Your task to perform on an android device: Go to sound settings Image 0: 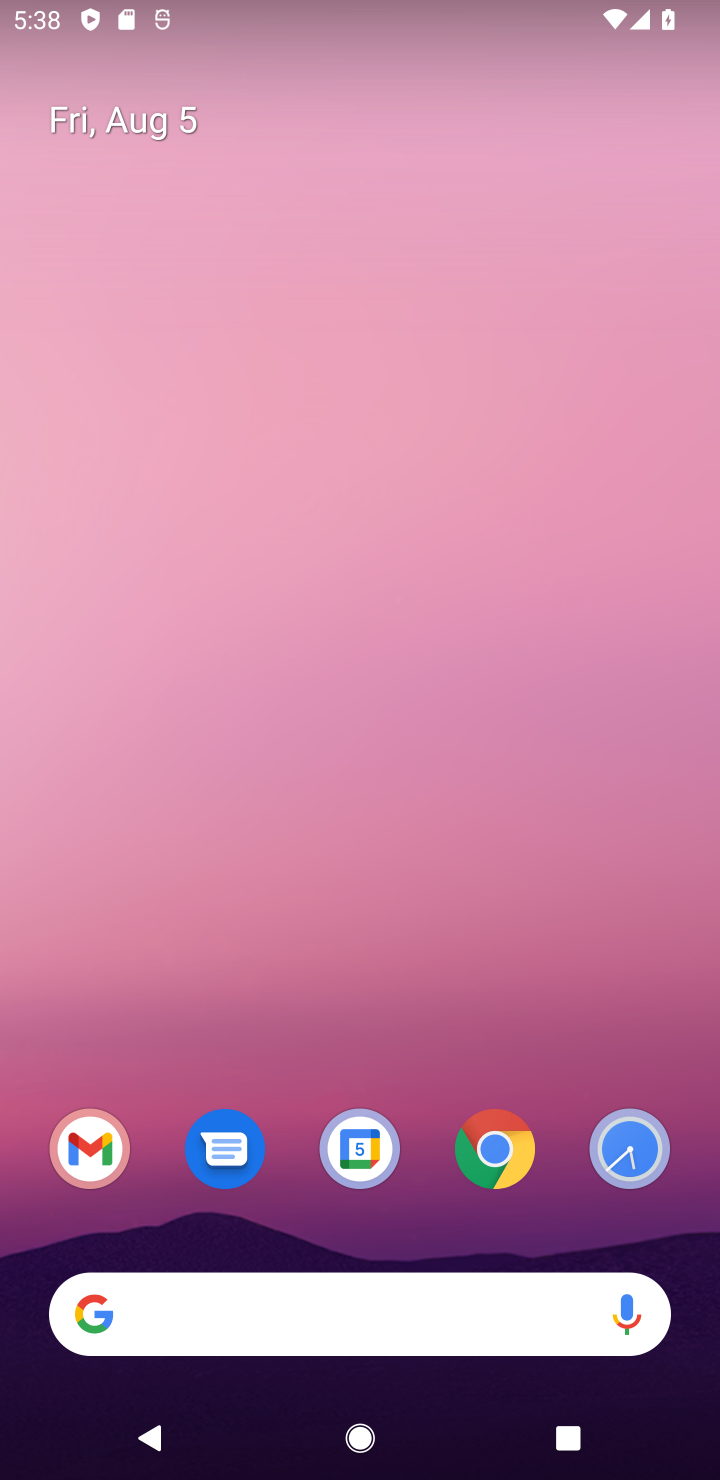
Step 0: drag from (284, 1053) to (221, 144)
Your task to perform on an android device: Go to sound settings Image 1: 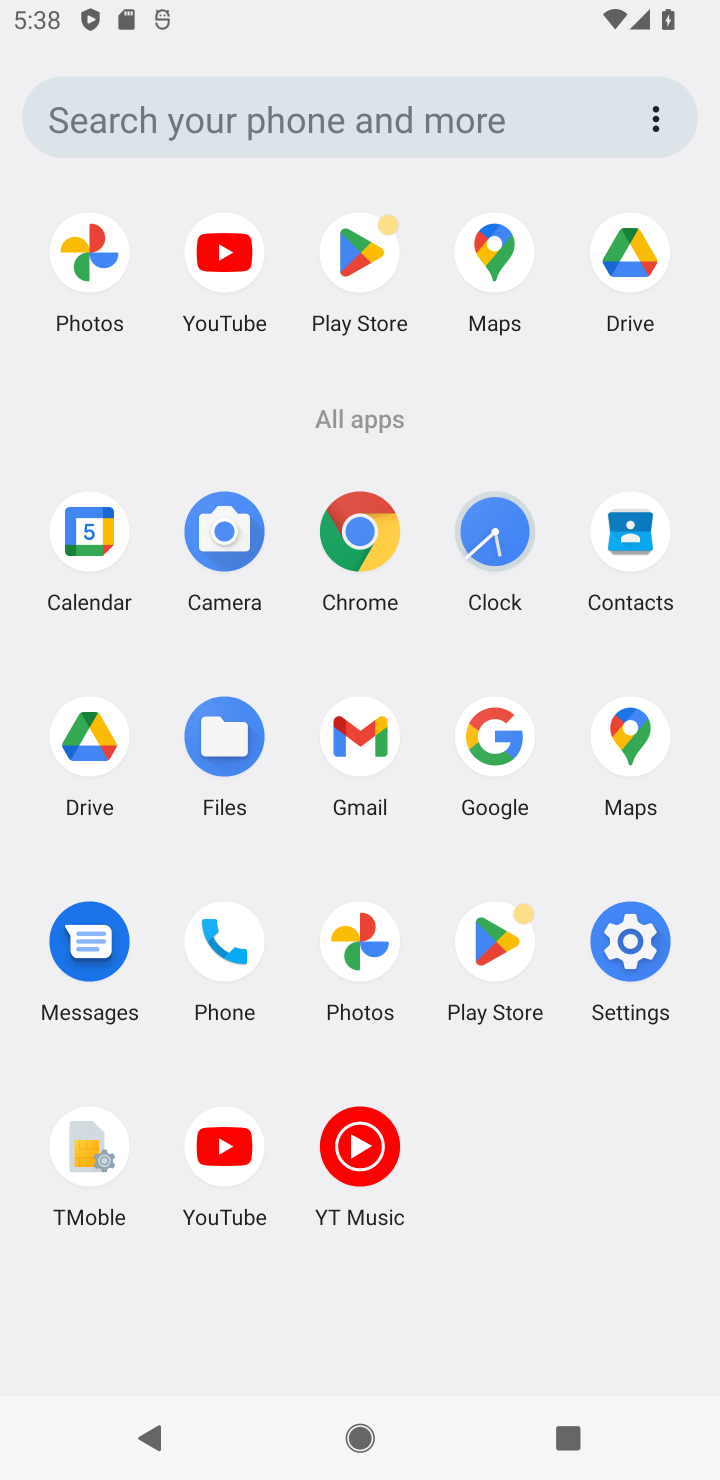
Step 1: click (628, 938)
Your task to perform on an android device: Go to sound settings Image 2: 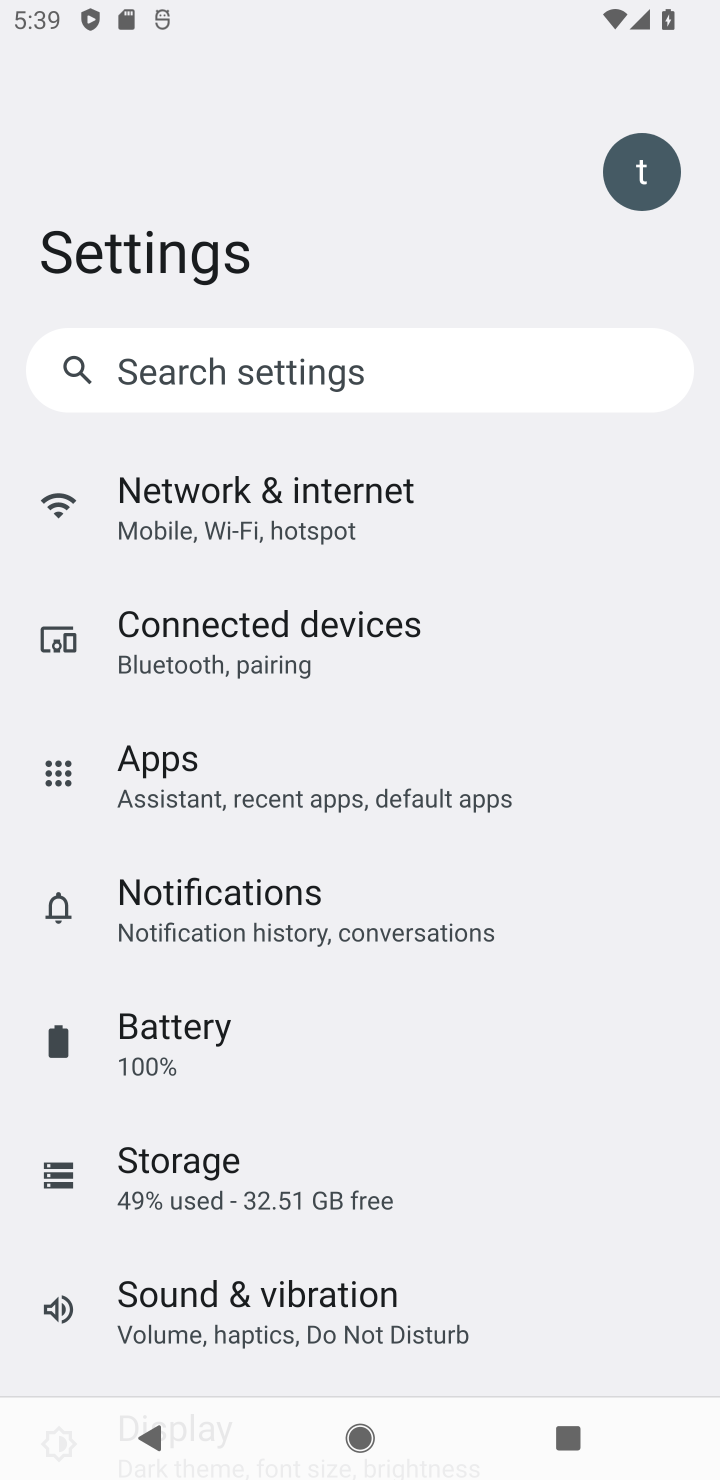
Step 2: click (255, 1340)
Your task to perform on an android device: Go to sound settings Image 3: 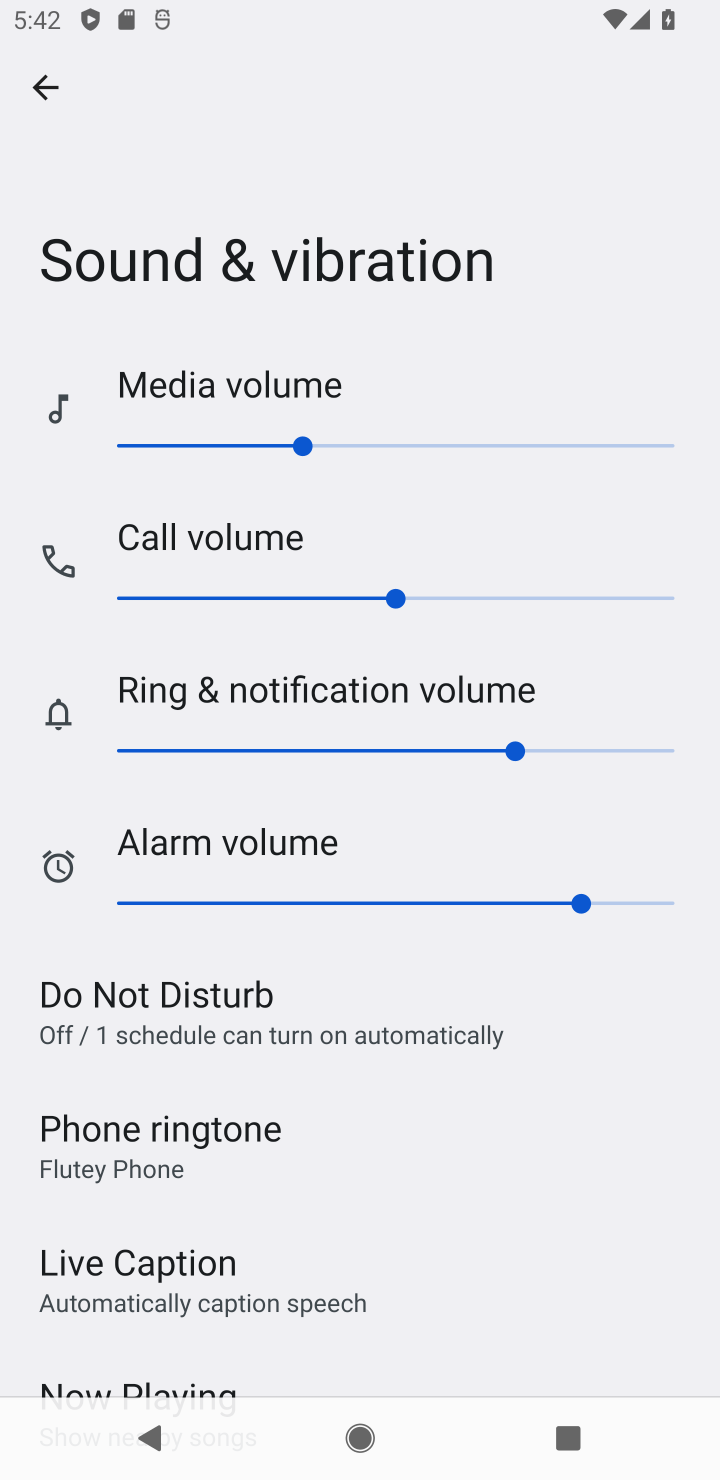
Step 3: task complete